Your task to perform on an android device: delete location history Image 0: 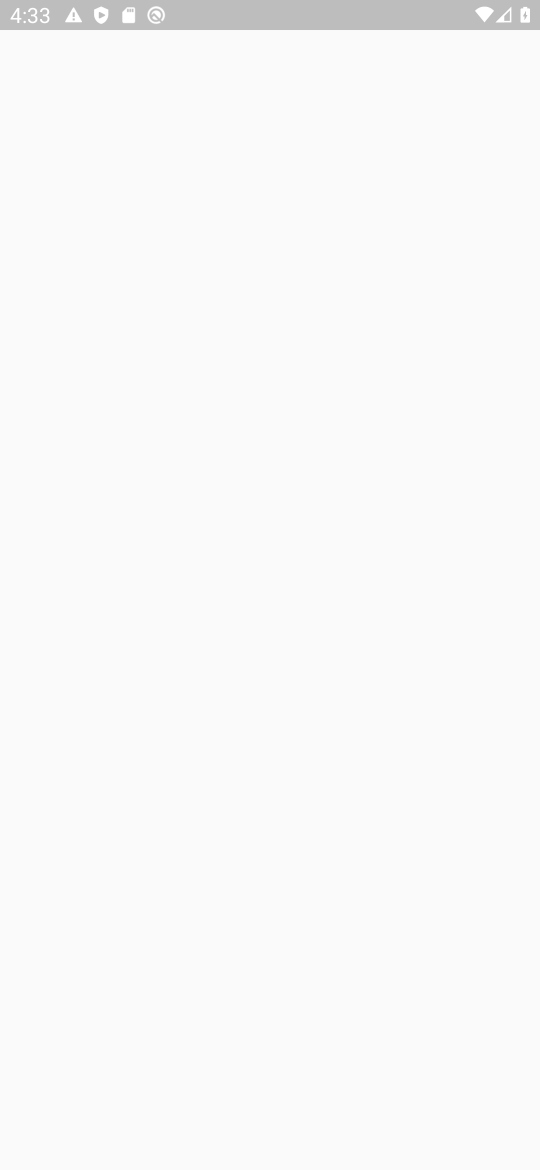
Step 0: press home button
Your task to perform on an android device: delete location history Image 1: 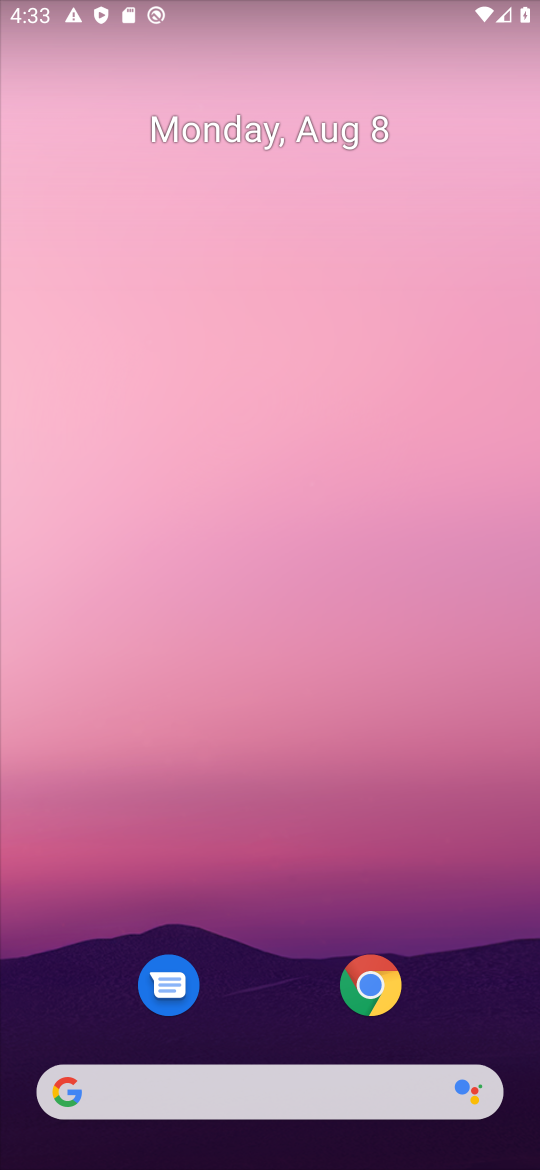
Step 1: drag from (265, 926) to (444, 114)
Your task to perform on an android device: delete location history Image 2: 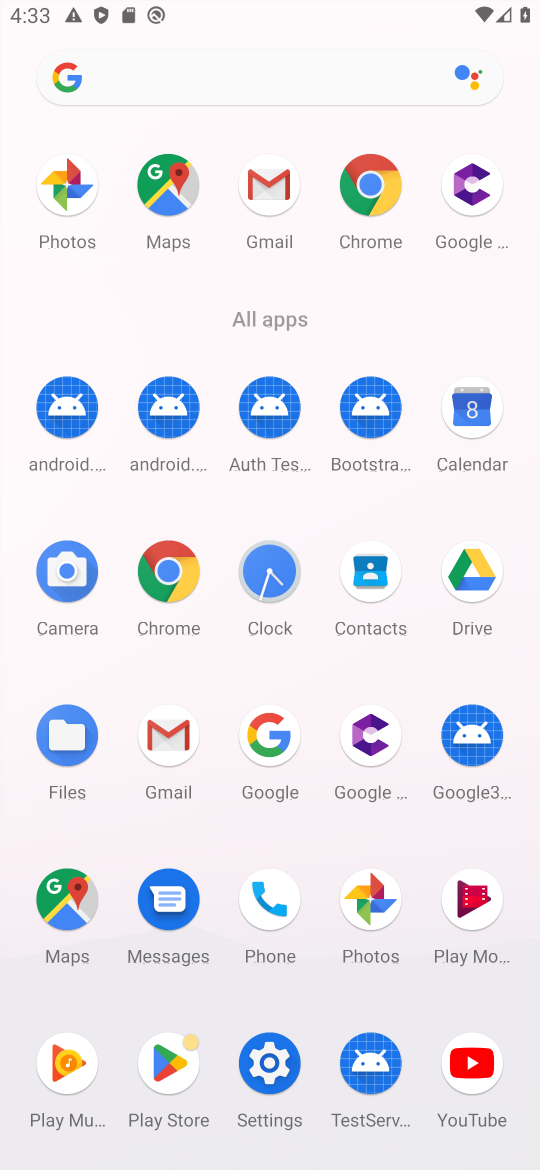
Step 2: click (57, 902)
Your task to perform on an android device: delete location history Image 3: 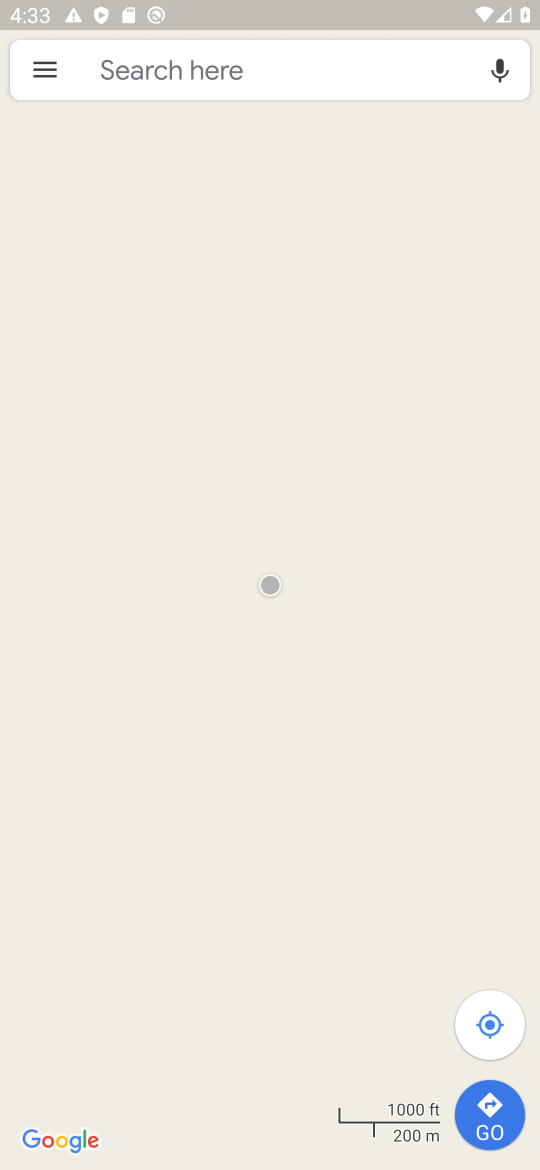
Step 3: click (46, 62)
Your task to perform on an android device: delete location history Image 4: 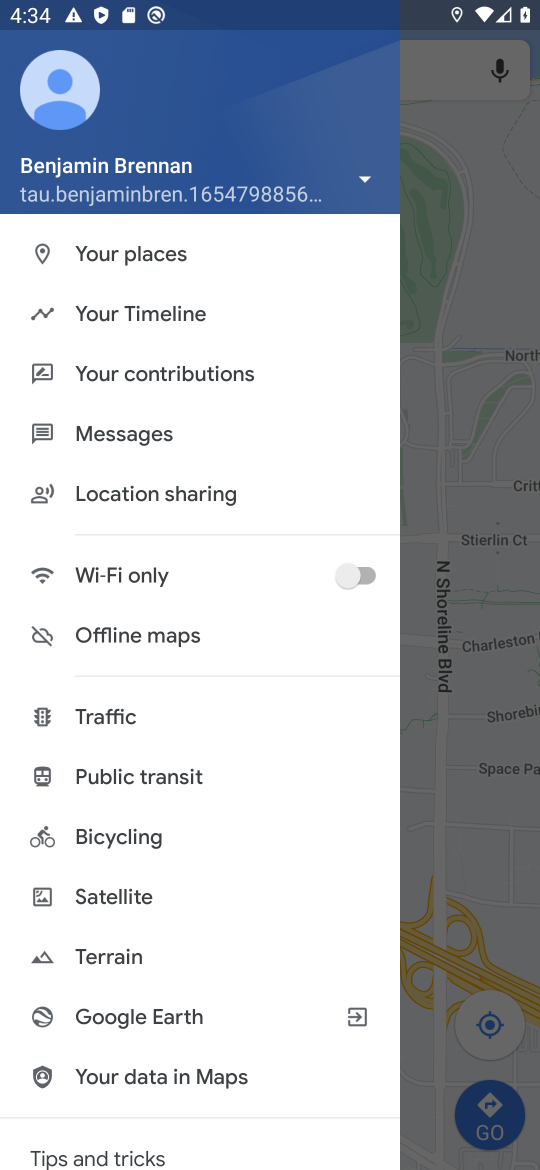
Step 4: task complete